Your task to perform on an android device: Clear all items from cart on walmart.com. Image 0: 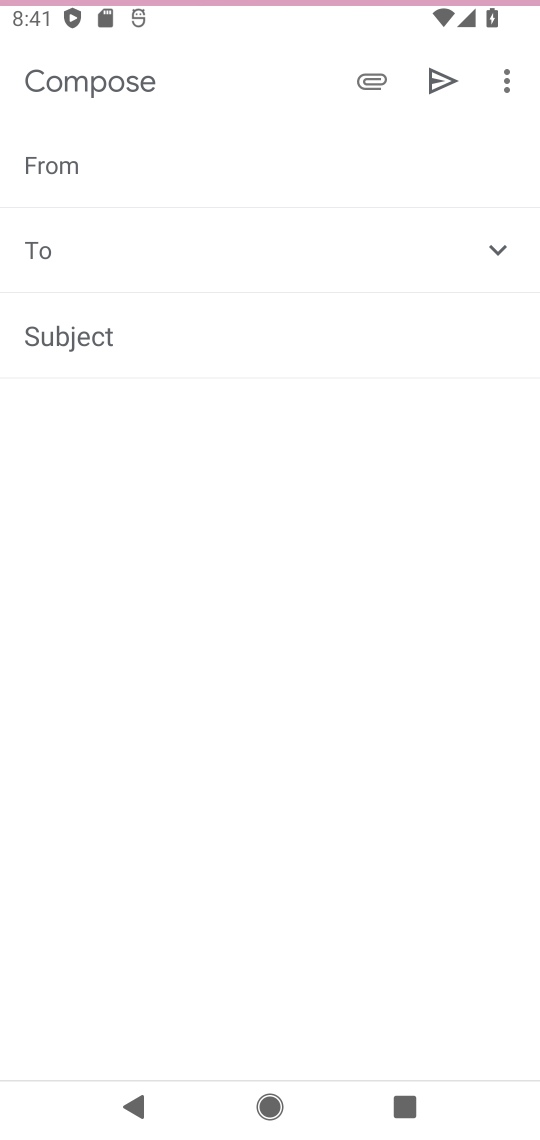
Step 0: press home button
Your task to perform on an android device: Clear all items from cart on walmart.com. Image 1: 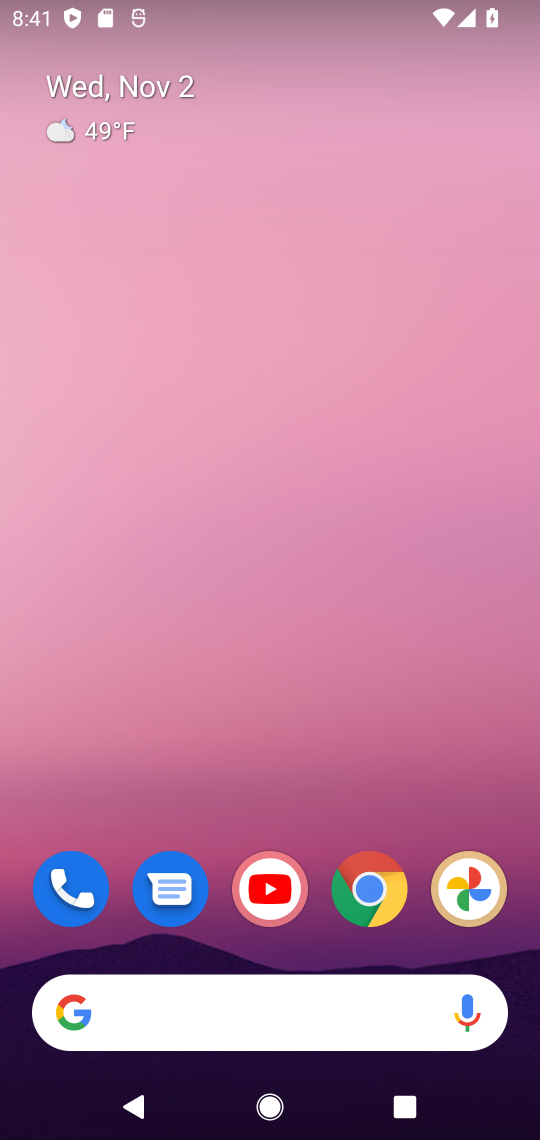
Step 1: drag from (304, 848) to (372, 169)
Your task to perform on an android device: Clear all items from cart on walmart.com. Image 2: 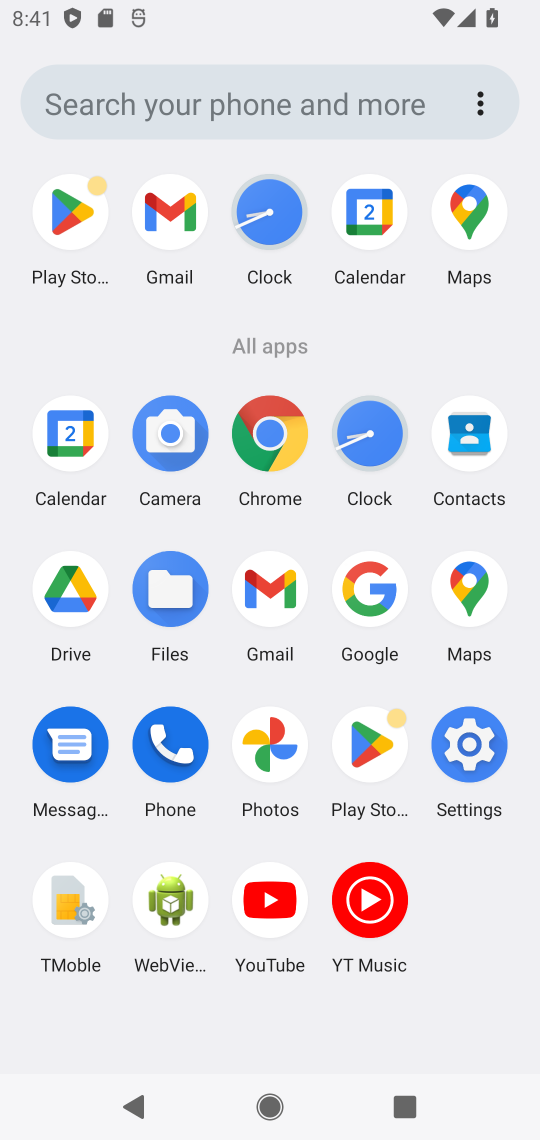
Step 2: click (271, 422)
Your task to perform on an android device: Clear all items from cart on walmart.com. Image 3: 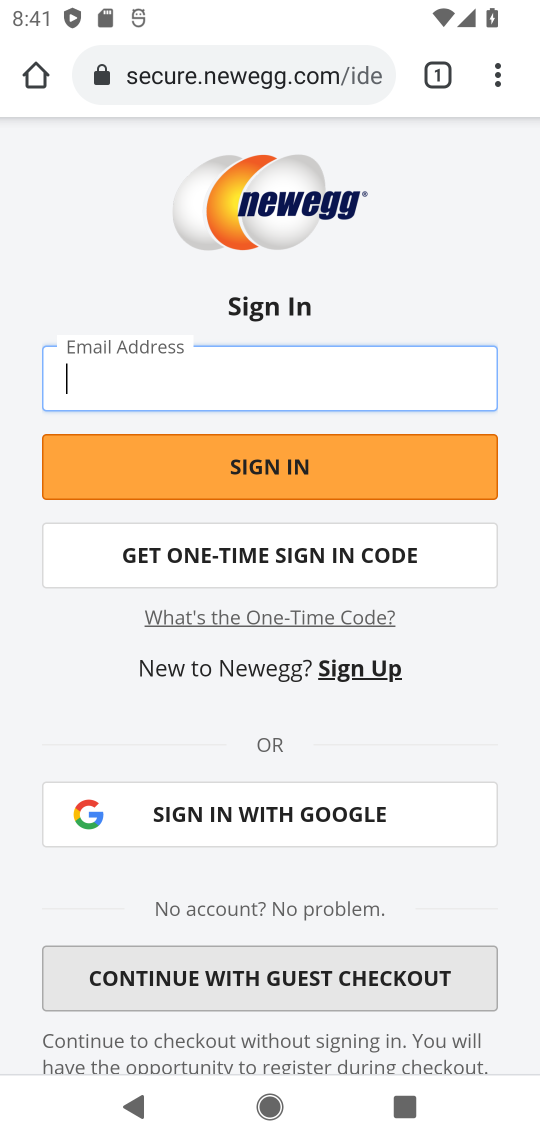
Step 3: click (163, 68)
Your task to perform on an android device: Clear all items from cart on walmart.com. Image 4: 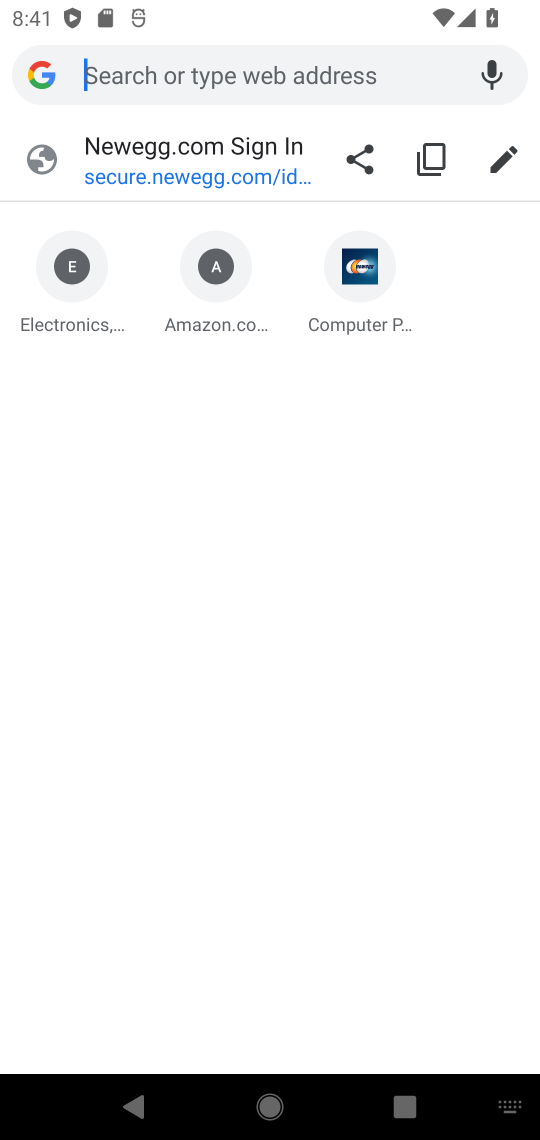
Step 4: type "walmart"
Your task to perform on an android device: Clear all items from cart on walmart.com. Image 5: 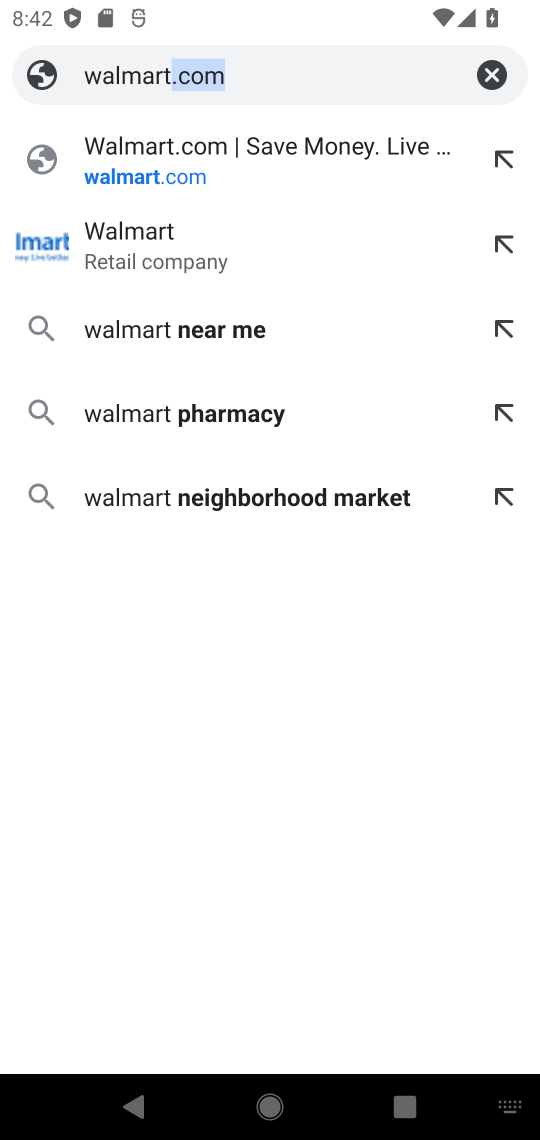
Step 5: click (166, 245)
Your task to perform on an android device: Clear all items from cart on walmart.com. Image 6: 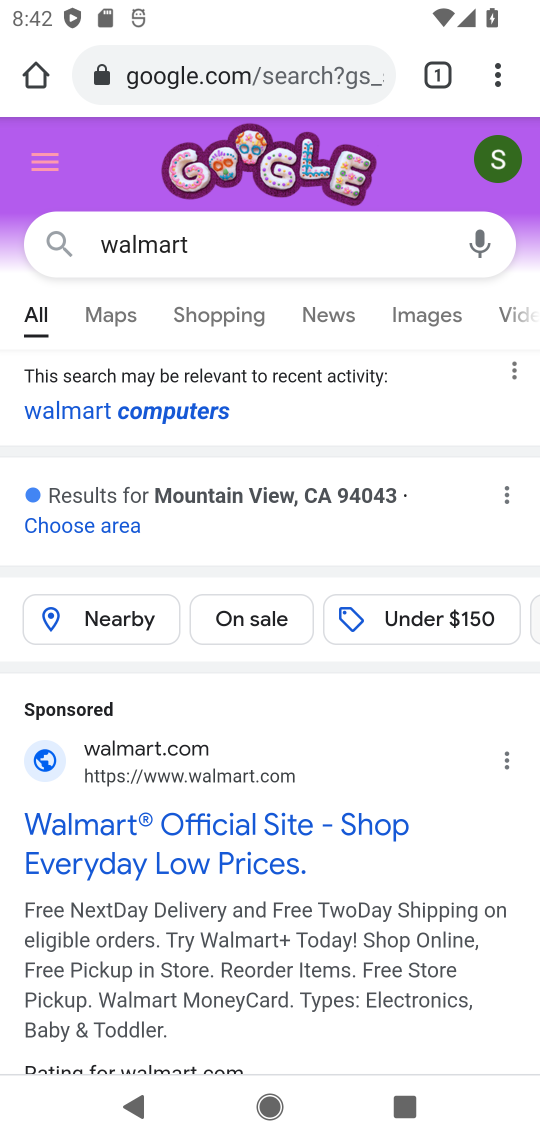
Step 6: click (217, 832)
Your task to perform on an android device: Clear all items from cart on walmart.com. Image 7: 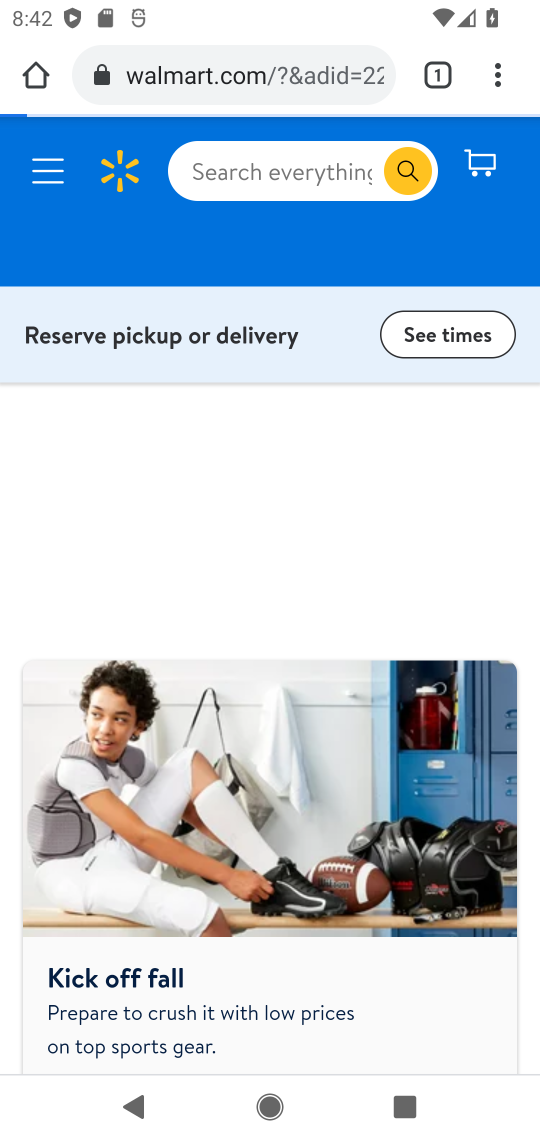
Step 7: drag from (354, 992) to (479, 146)
Your task to perform on an android device: Clear all items from cart on walmart.com. Image 8: 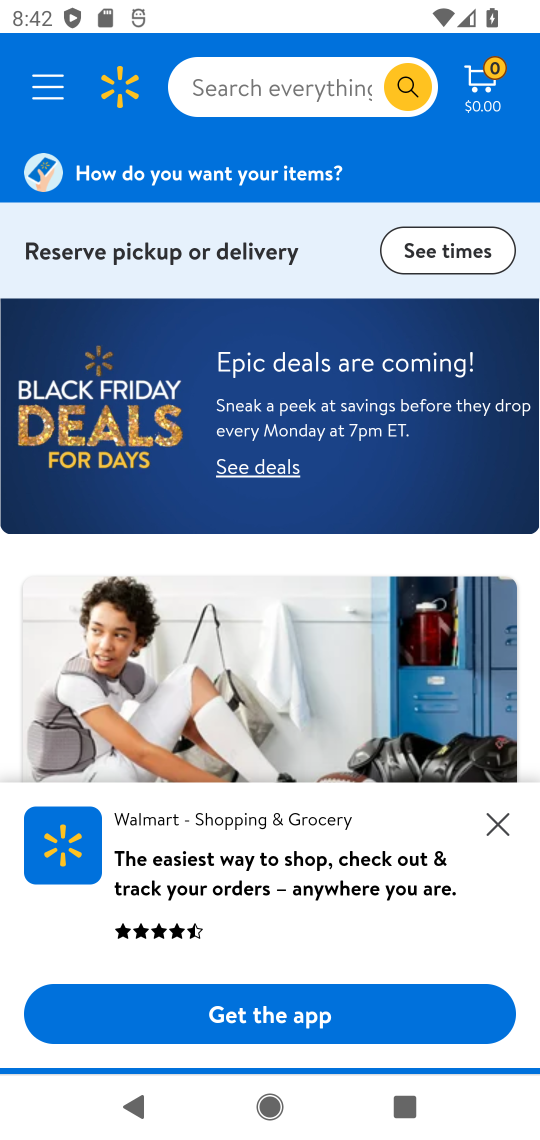
Step 8: click (493, 818)
Your task to perform on an android device: Clear all items from cart on walmart.com. Image 9: 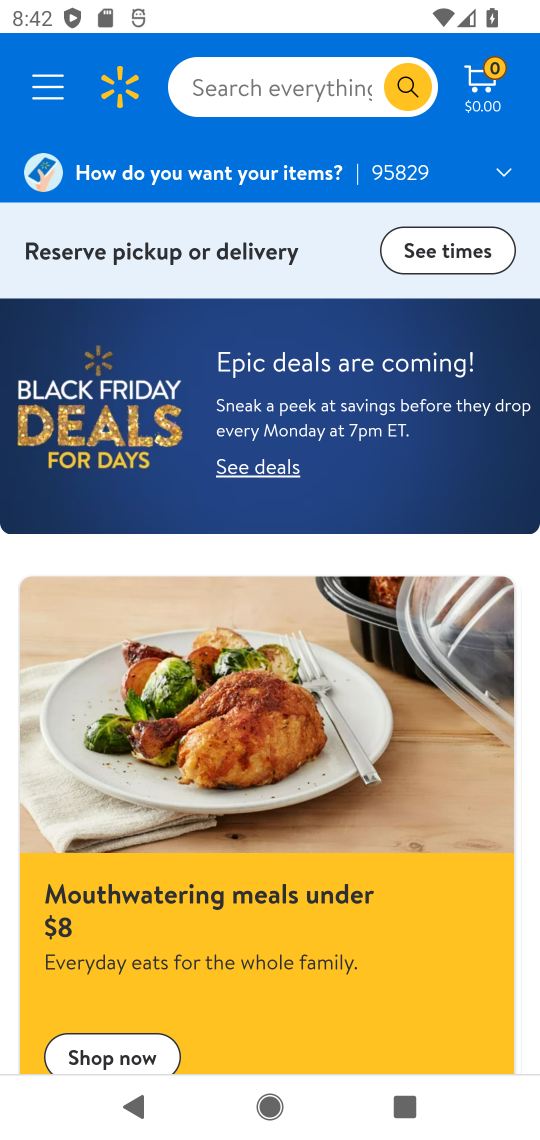
Step 9: click (486, 79)
Your task to perform on an android device: Clear all items from cart on walmart.com. Image 10: 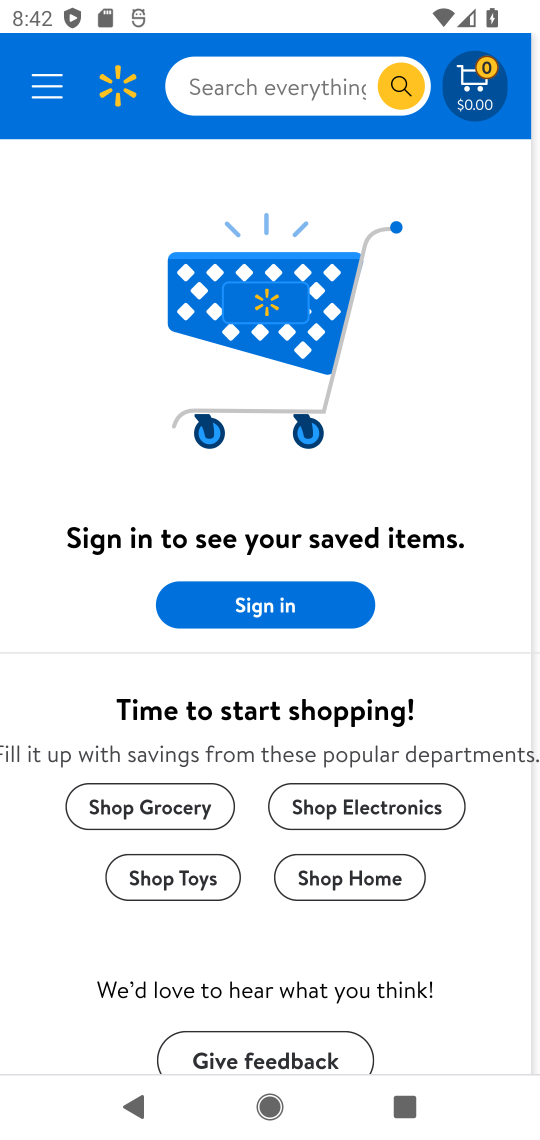
Step 10: task complete